Your task to perform on an android device: toggle notification dots Image 0: 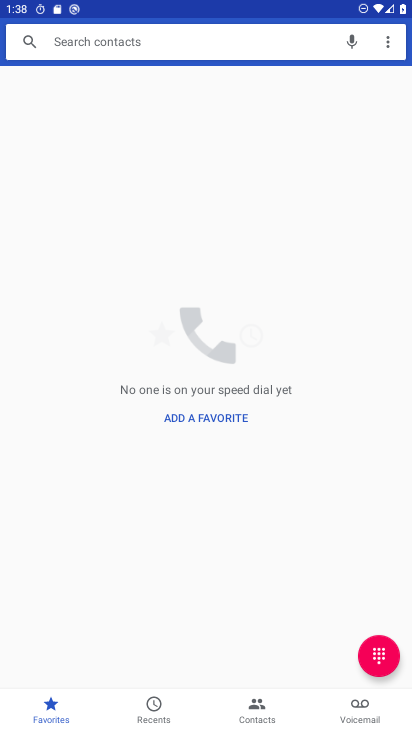
Step 0: press home button
Your task to perform on an android device: toggle notification dots Image 1: 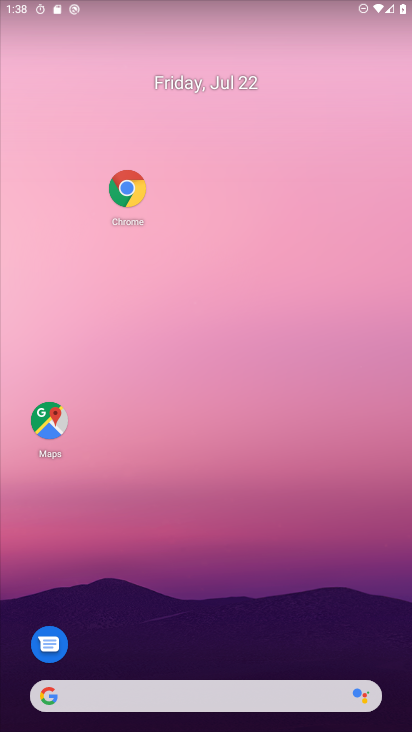
Step 1: drag from (177, 650) to (223, 299)
Your task to perform on an android device: toggle notification dots Image 2: 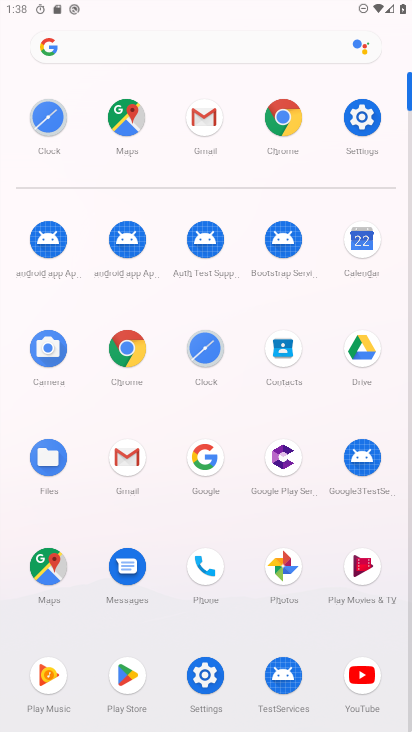
Step 2: click (364, 120)
Your task to perform on an android device: toggle notification dots Image 3: 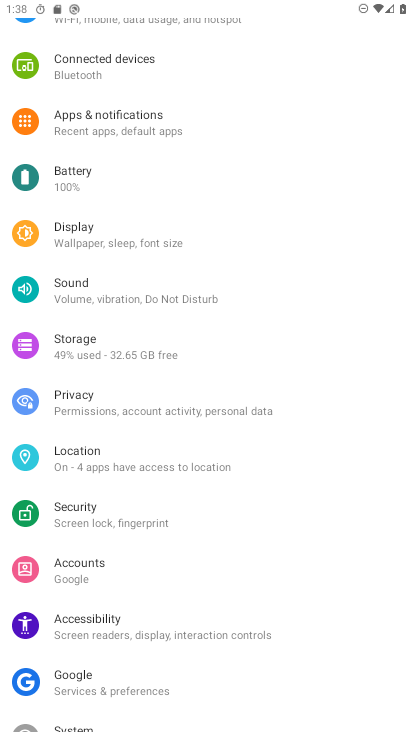
Step 3: click (116, 131)
Your task to perform on an android device: toggle notification dots Image 4: 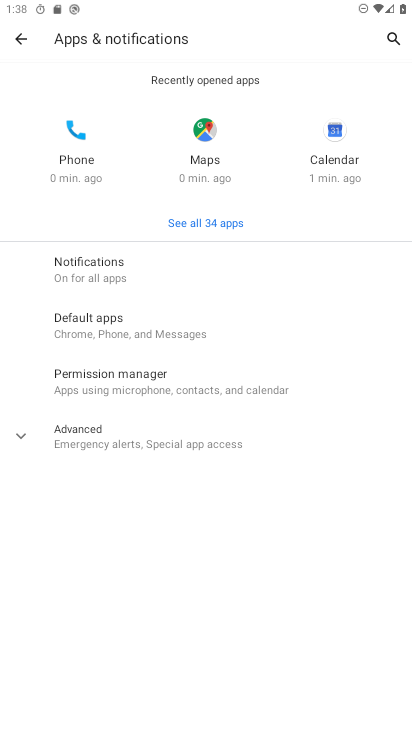
Step 4: click (125, 446)
Your task to perform on an android device: toggle notification dots Image 5: 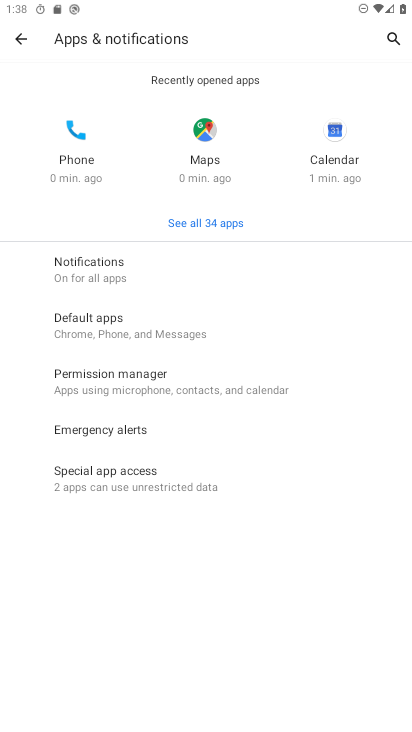
Step 5: click (144, 294)
Your task to perform on an android device: toggle notification dots Image 6: 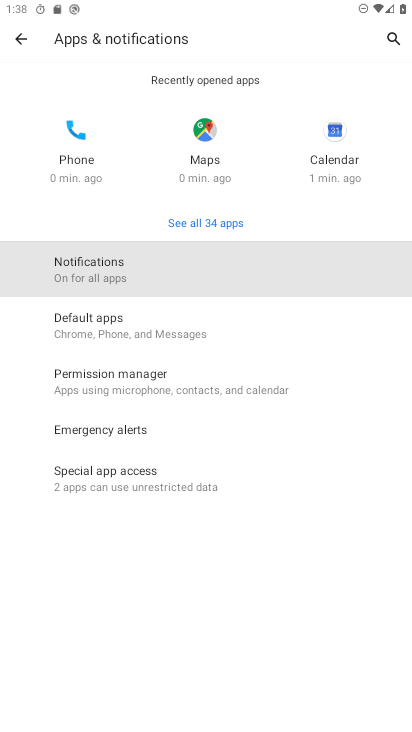
Step 6: click (110, 255)
Your task to perform on an android device: toggle notification dots Image 7: 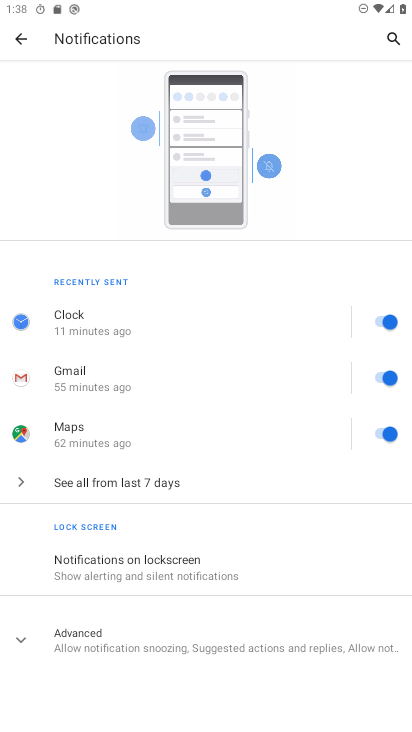
Step 7: click (132, 634)
Your task to perform on an android device: toggle notification dots Image 8: 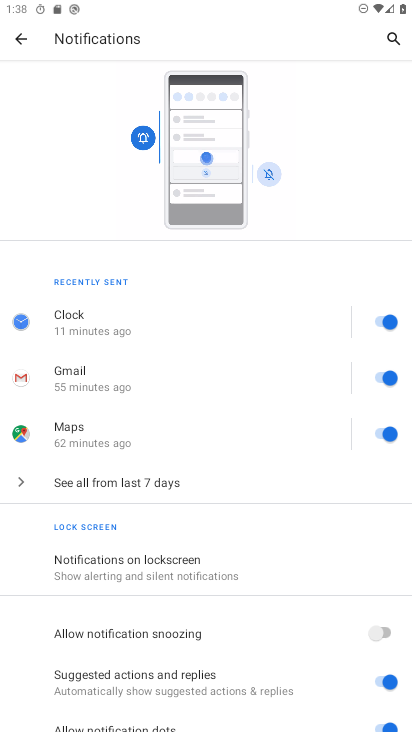
Step 8: drag from (221, 677) to (223, 294)
Your task to perform on an android device: toggle notification dots Image 9: 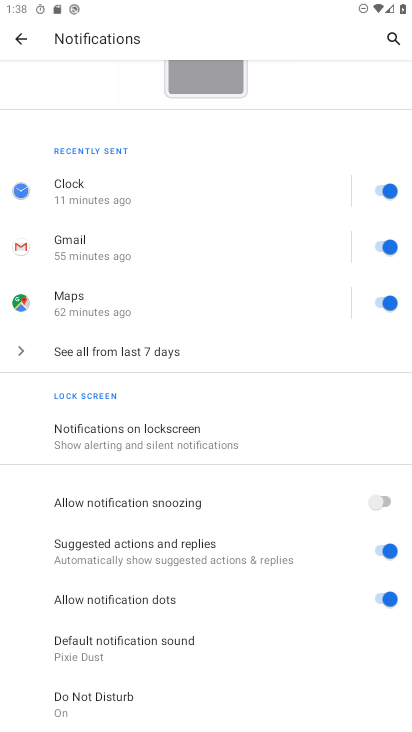
Step 9: click (385, 601)
Your task to perform on an android device: toggle notification dots Image 10: 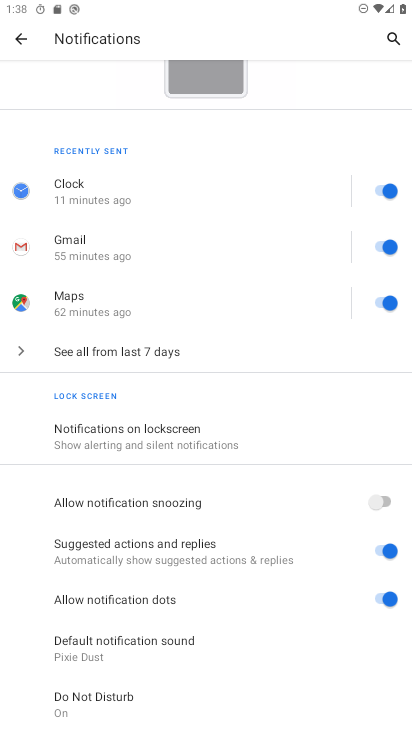
Step 10: click (385, 601)
Your task to perform on an android device: toggle notification dots Image 11: 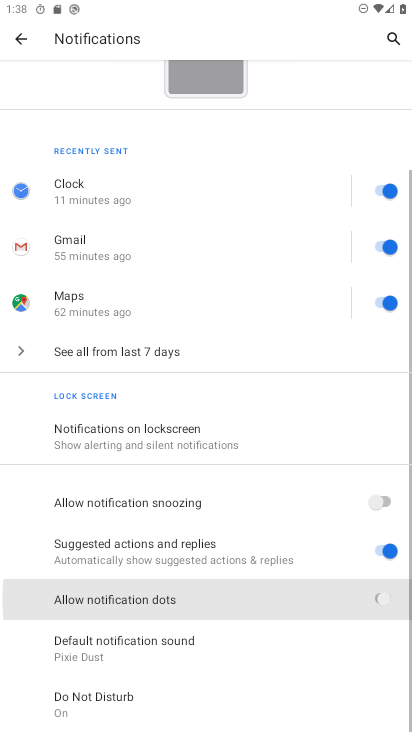
Step 11: click (385, 601)
Your task to perform on an android device: toggle notification dots Image 12: 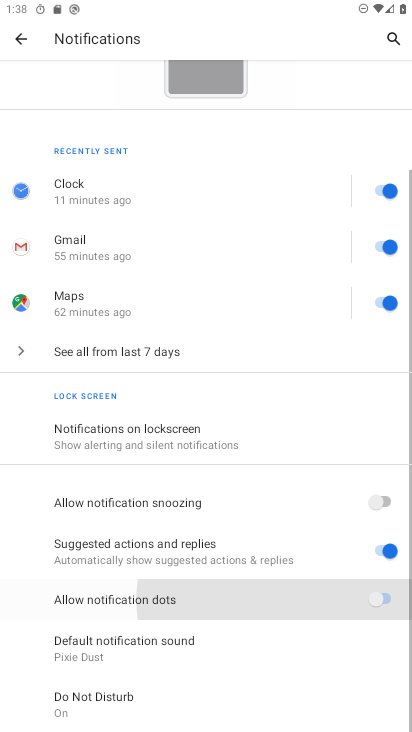
Step 12: click (385, 601)
Your task to perform on an android device: toggle notification dots Image 13: 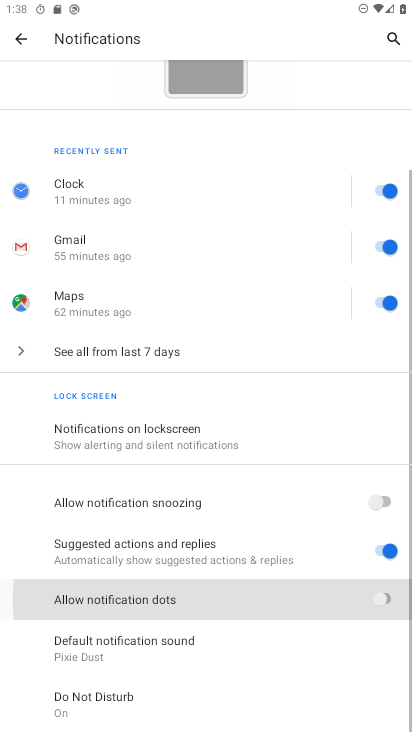
Step 13: click (385, 601)
Your task to perform on an android device: toggle notification dots Image 14: 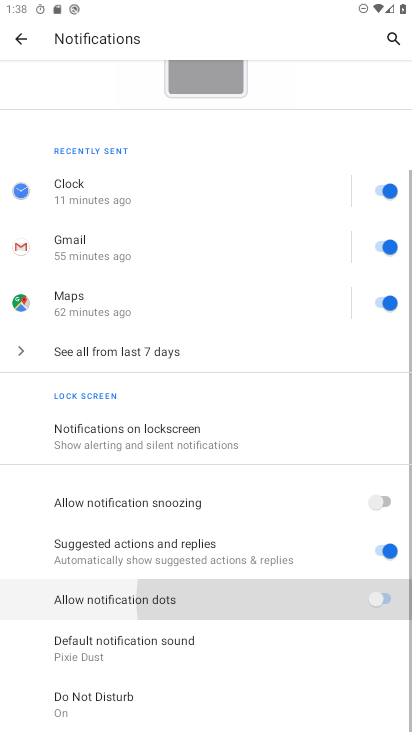
Step 14: click (385, 601)
Your task to perform on an android device: toggle notification dots Image 15: 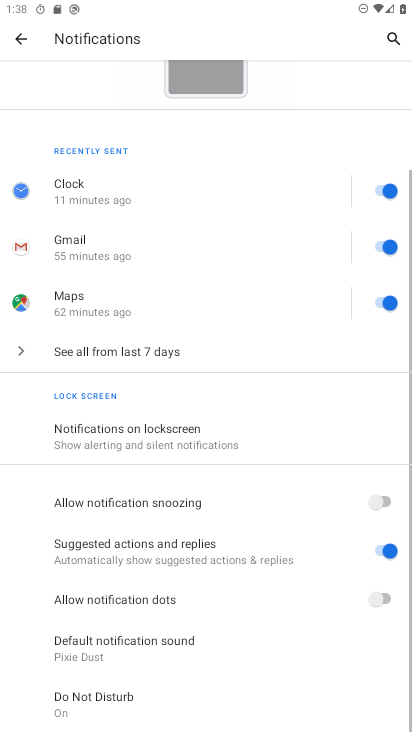
Step 15: click (385, 601)
Your task to perform on an android device: toggle notification dots Image 16: 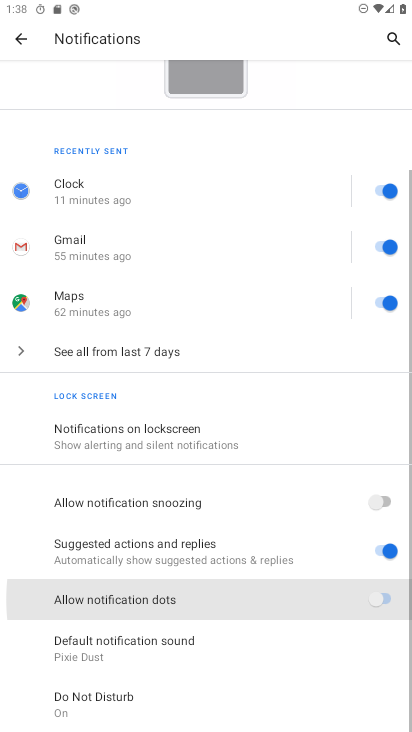
Step 16: click (385, 601)
Your task to perform on an android device: toggle notification dots Image 17: 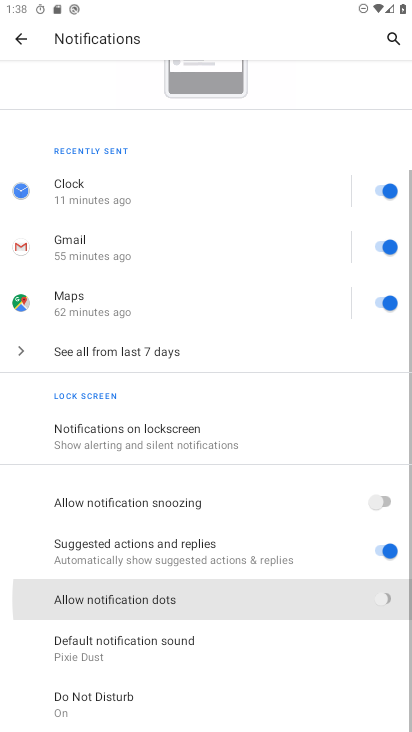
Step 17: click (385, 601)
Your task to perform on an android device: toggle notification dots Image 18: 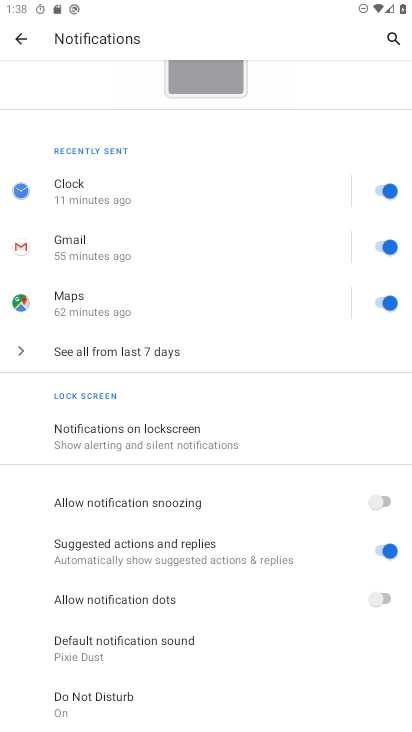
Step 18: task complete